Your task to perform on an android device: Check the news Image 0: 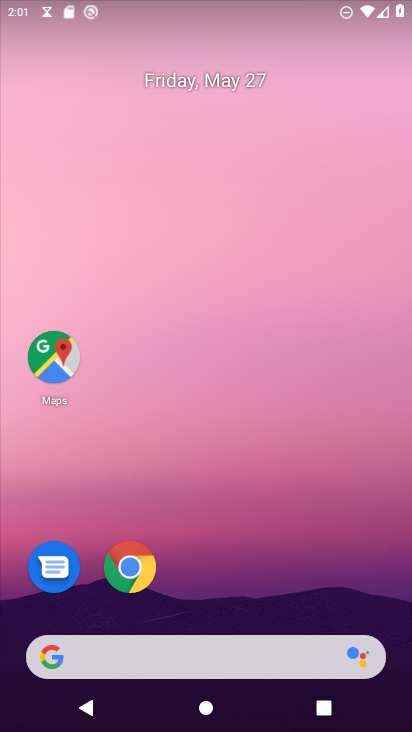
Step 0: drag from (235, 613) to (216, 196)
Your task to perform on an android device: Check the news Image 1: 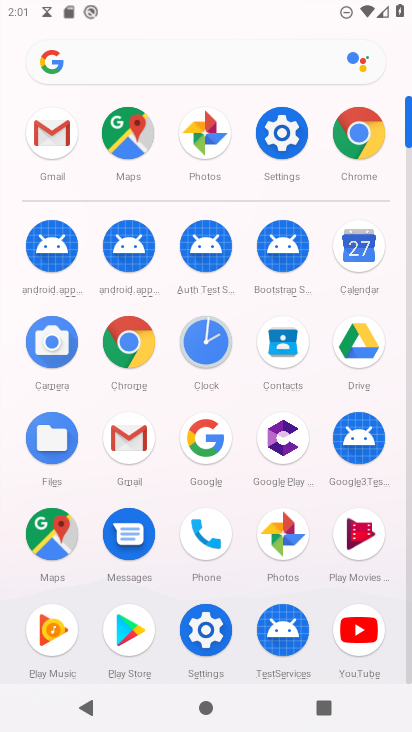
Step 1: click (346, 125)
Your task to perform on an android device: Check the news Image 2: 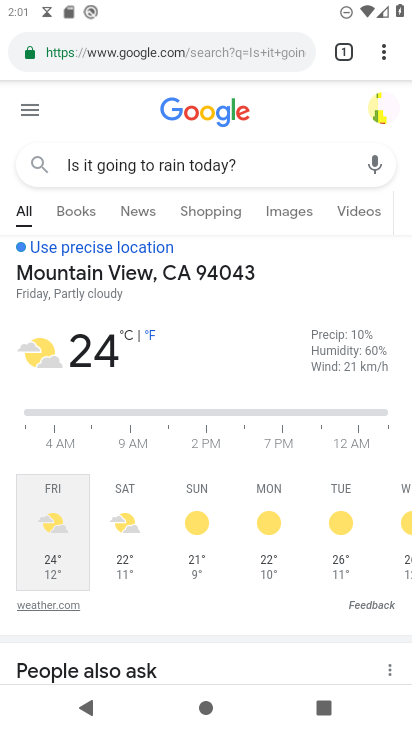
Step 2: click (173, 52)
Your task to perform on an android device: Check the news Image 3: 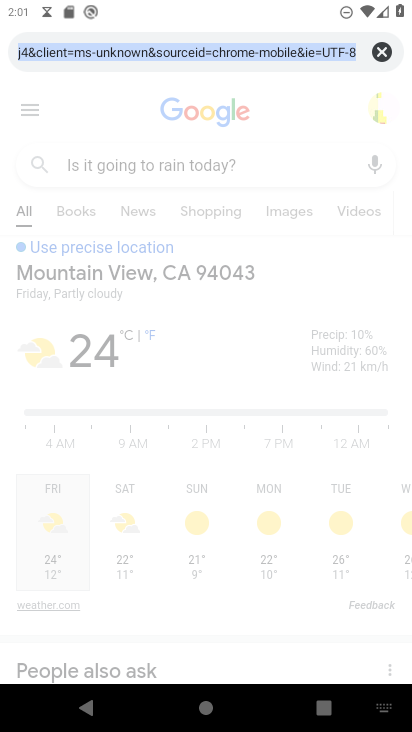
Step 3: type "news"
Your task to perform on an android device: Check the news Image 4: 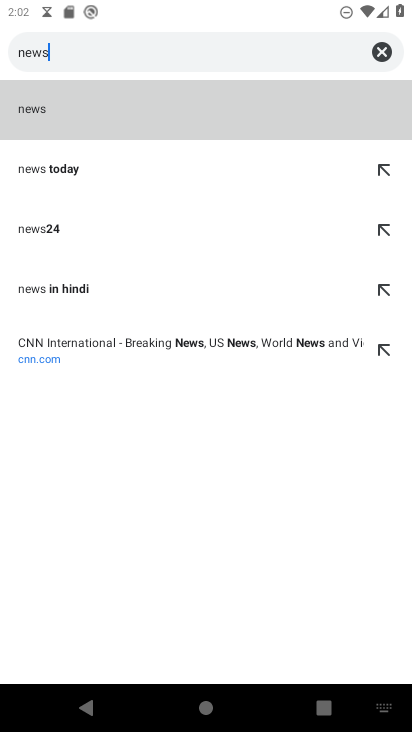
Step 4: click (30, 112)
Your task to perform on an android device: Check the news Image 5: 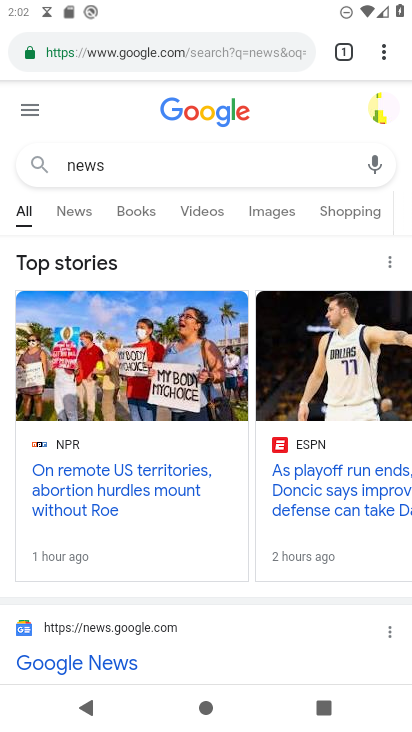
Step 5: task complete